Your task to perform on an android device: What's the latest news in space technology? Image 0: 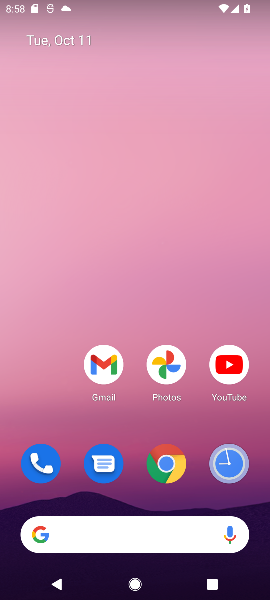
Step 0: drag from (183, 517) to (190, 179)
Your task to perform on an android device: What's the latest news in space technology? Image 1: 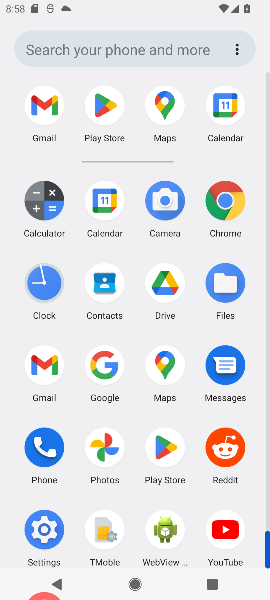
Step 1: click (103, 368)
Your task to perform on an android device: What's the latest news in space technology? Image 2: 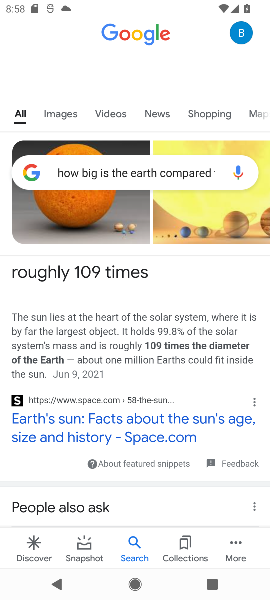
Step 2: click (142, 167)
Your task to perform on an android device: What's the latest news in space technology? Image 3: 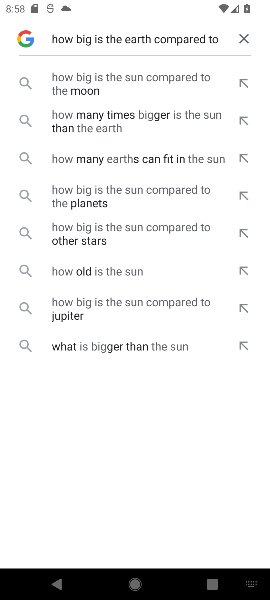
Step 3: click (241, 38)
Your task to perform on an android device: What's the latest news in space technology? Image 4: 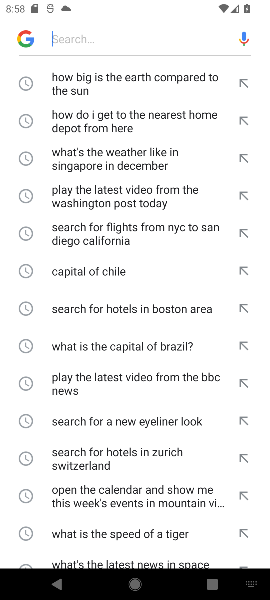
Step 4: click (119, 35)
Your task to perform on an android device: What's the latest news in space technology? Image 5: 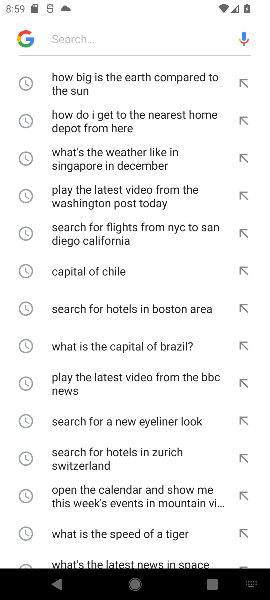
Step 5: type "What's the latest news in space technology? "
Your task to perform on an android device: What's the latest news in space technology? Image 6: 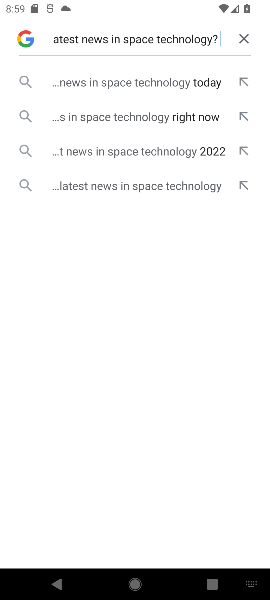
Step 6: click (143, 89)
Your task to perform on an android device: What's the latest news in space technology? Image 7: 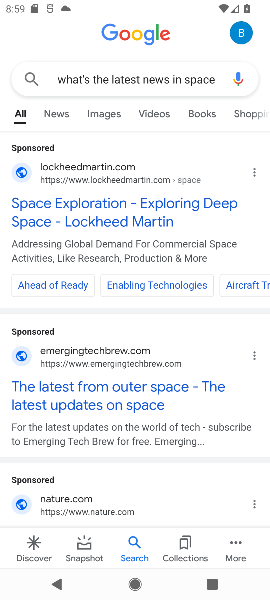
Step 7: click (114, 196)
Your task to perform on an android device: What's the latest news in space technology? Image 8: 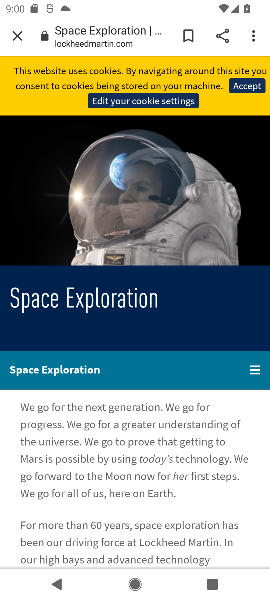
Step 8: task complete